Your task to perform on an android device: Go to Amazon Image 0: 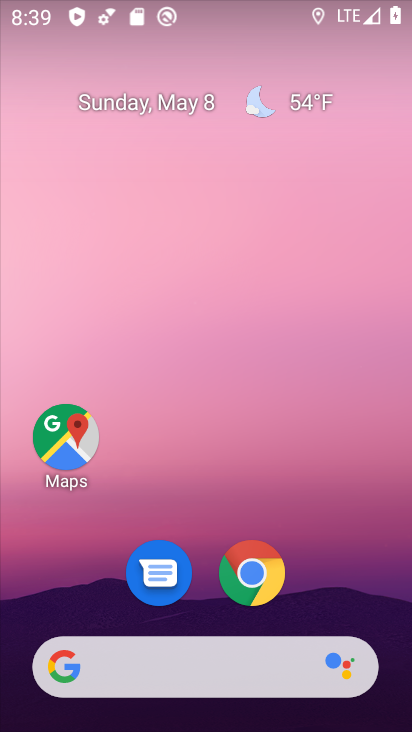
Step 0: click (259, 573)
Your task to perform on an android device: Go to Amazon Image 1: 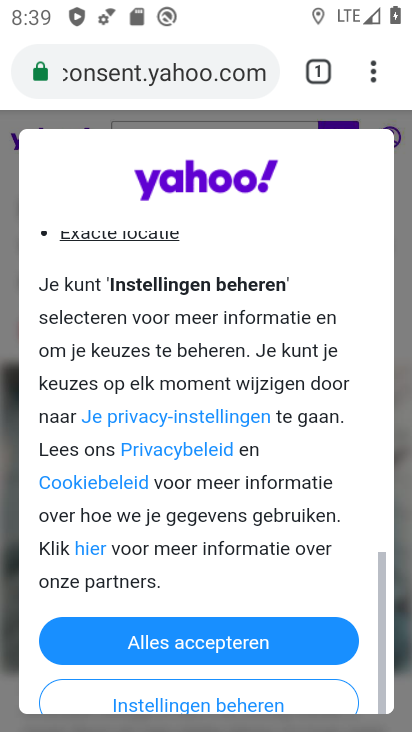
Step 1: drag from (373, 80) to (113, 140)
Your task to perform on an android device: Go to Amazon Image 2: 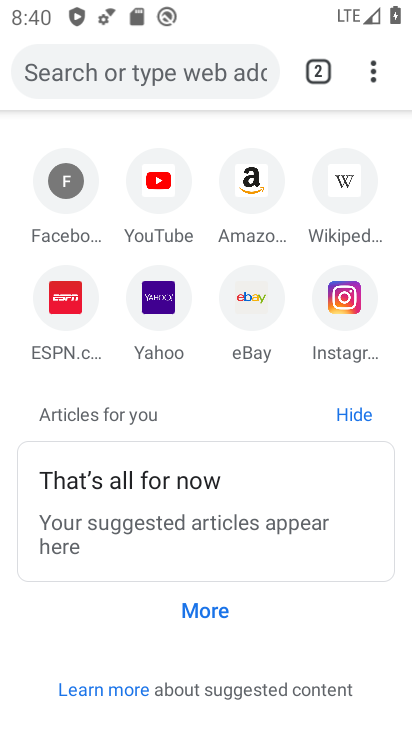
Step 2: click (245, 184)
Your task to perform on an android device: Go to Amazon Image 3: 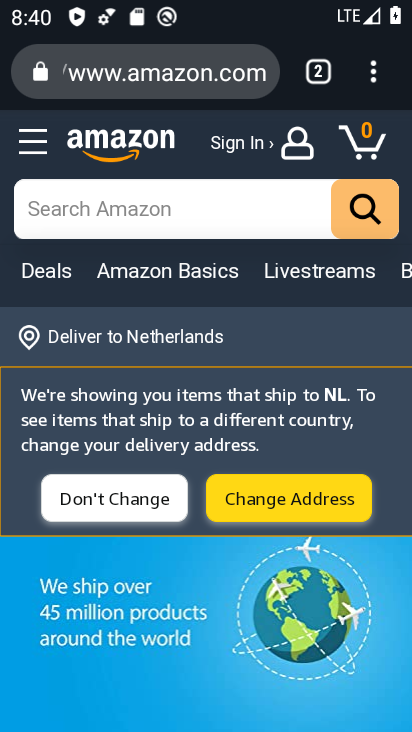
Step 3: task complete